Your task to perform on an android device: turn on translation in the chrome app Image 0: 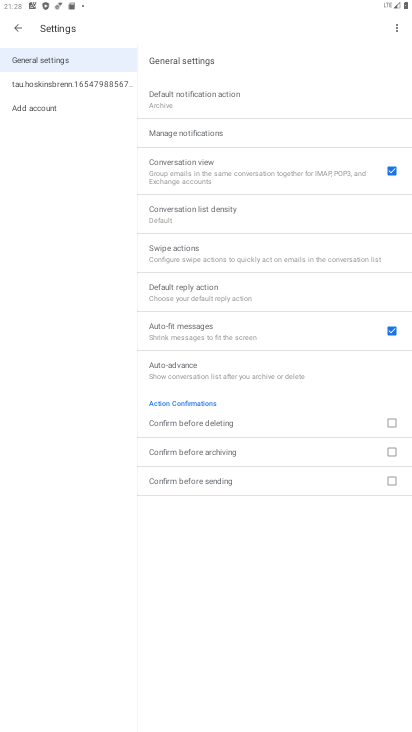
Step 0: drag from (233, 652) to (239, 383)
Your task to perform on an android device: turn on translation in the chrome app Image 1: 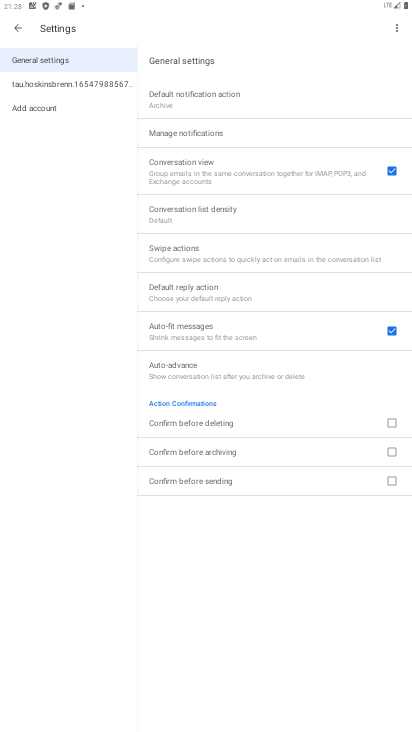
Step 1: click (53, 80)
Your task to perform on an android device: turn on translation in the chrome app Image 2: 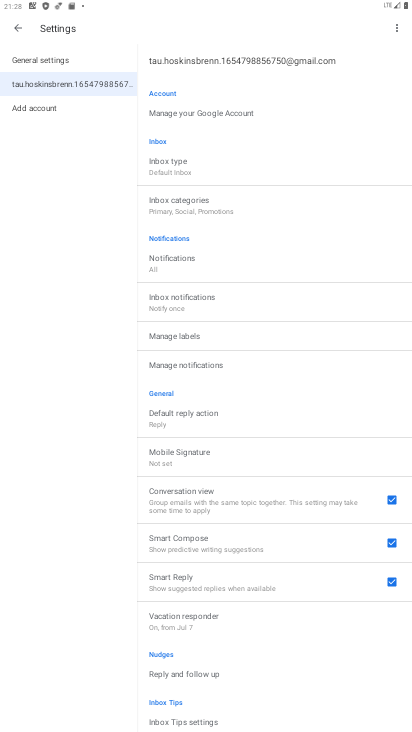
Step 2: drag from (244, 524) to (296, 283)
Your task to perform on an android device: turn on translation in the chrome app Image 3: 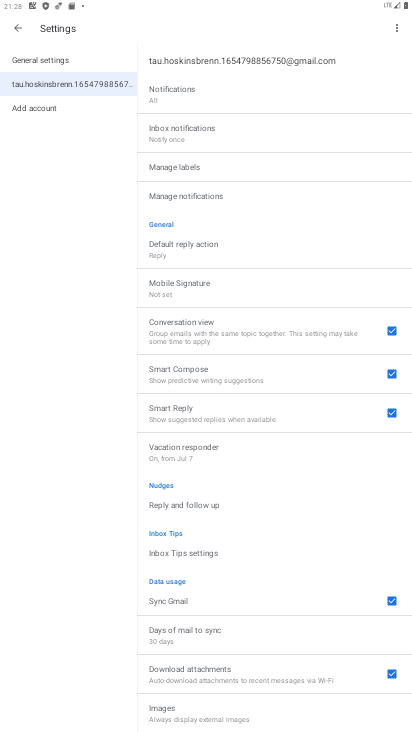
Step 3: drag from (248, 235) to (260, 553)
Your task to perform on an android device: turn on translation in the chrome app Image 4: 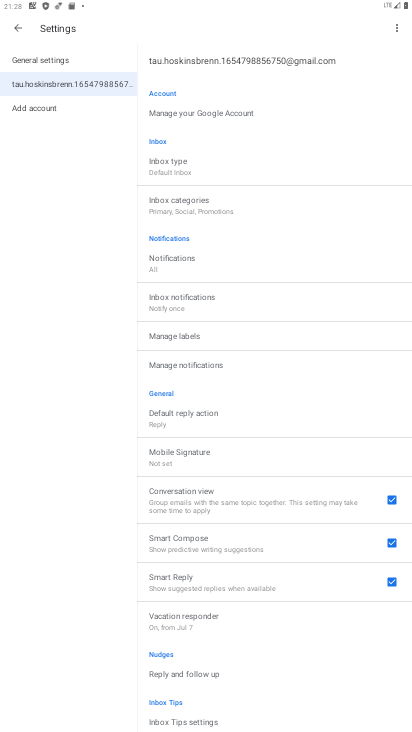
Step 4: press home button
Your task to perform on an android device: turn on translation in the chrome app Image 5: 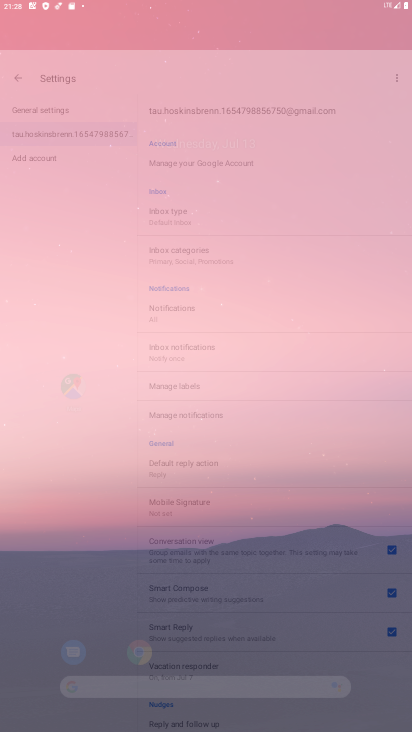
Step 5: drag from (137, 566) to (130, 209)
Your task to perform on an android device: turn on translation in the chrome app Image 6: 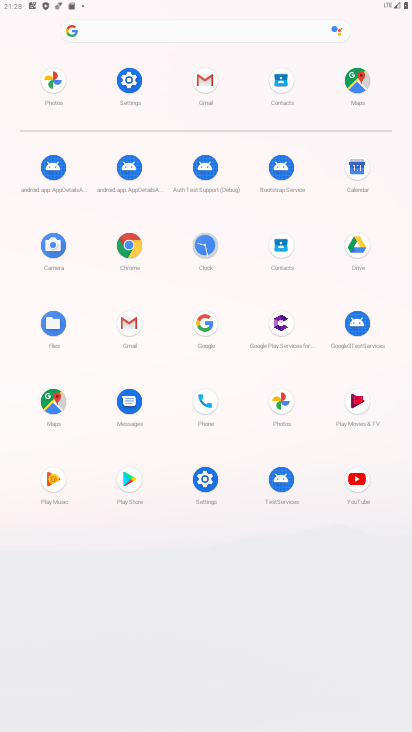
Step 6: click (126, 245)
Your task to perform on an android device: turn on translation in the chrome app Image 7: 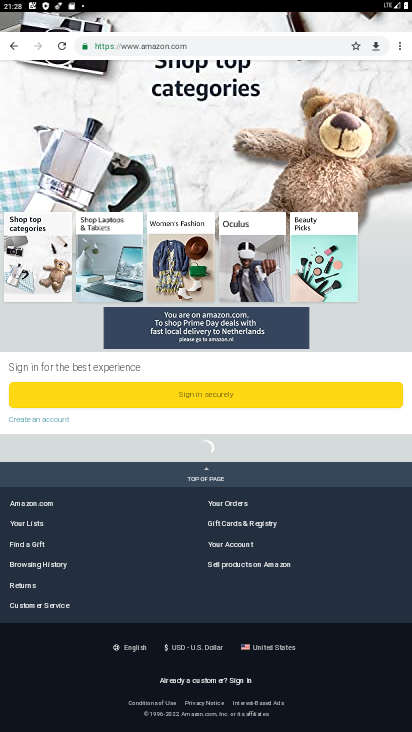
Step 7: drag from (208, 462) to (236, 224)
Your task to perform on an android device: turn on translation in the chrome app Image 8: 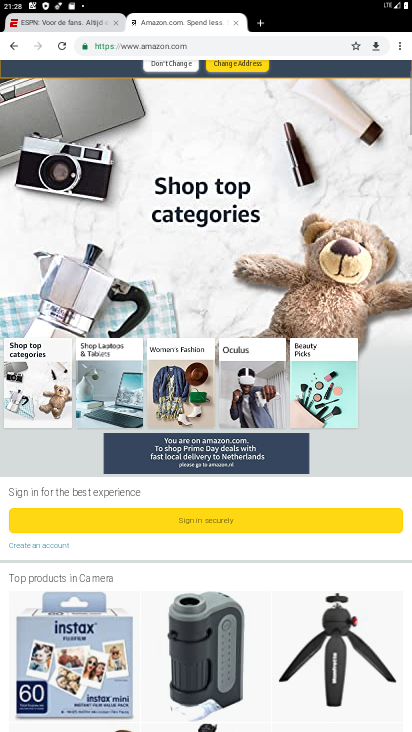
Step 8: drag from (234, 152) to (248, 728)
Your task to perform on an android device: turn on translation in the chrome app Image 9: 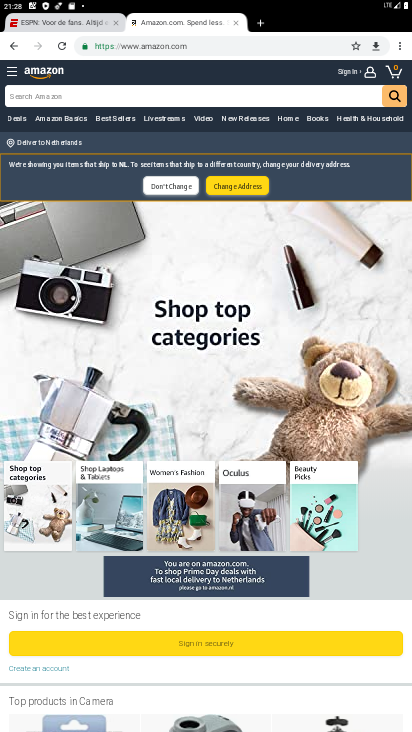
Step 9: click (398, 44)
Your task to perform on an android device: turn on translation in the chrome app Image 10: 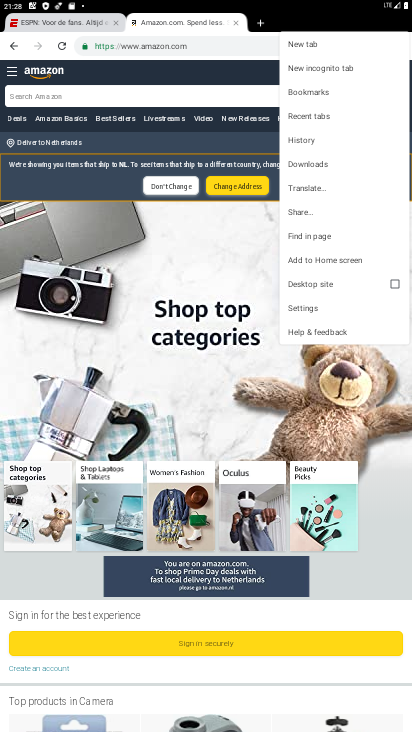
Step 10: click (304, 308)
Your task to perform on an android device: turn on translation in the chrome app Image 11: 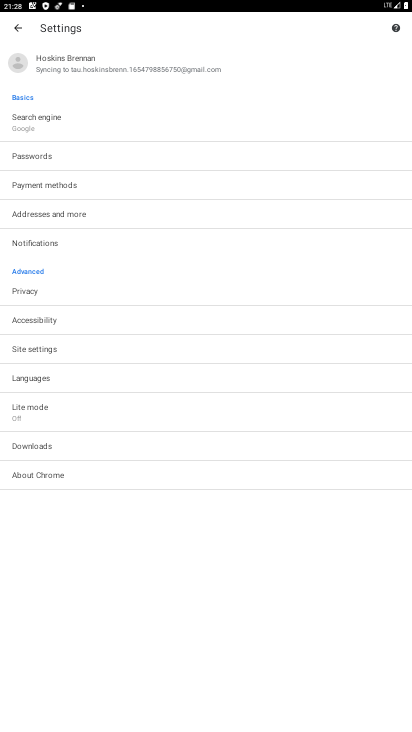
Step 11: drag from (186, 510) to (199, 274)
Your task to perform on an android device: turn on translation in the chrome app Image 12: 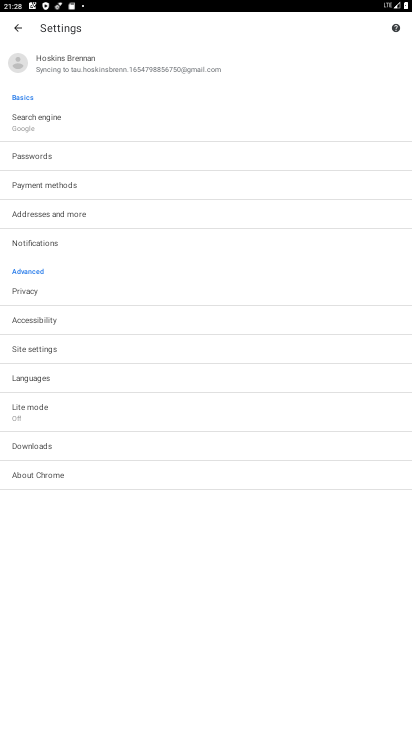
Step 12: click (43, 377)
Your task to perform on an android device: turn on translation in the chrome app Image 13: 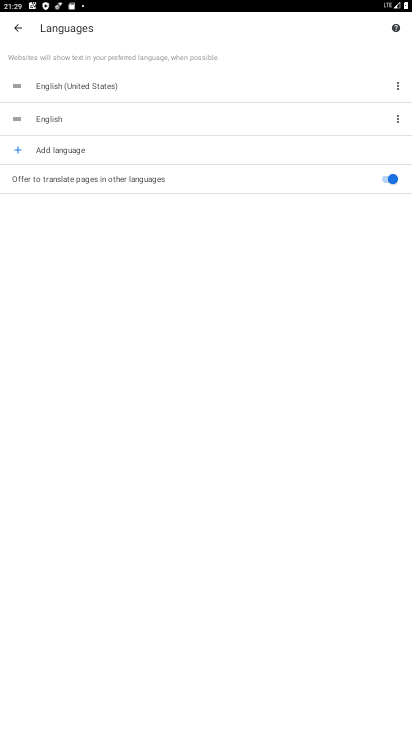
Step 13: task complete